Your task to perform on an android device: open device folders in google photos Image 0: 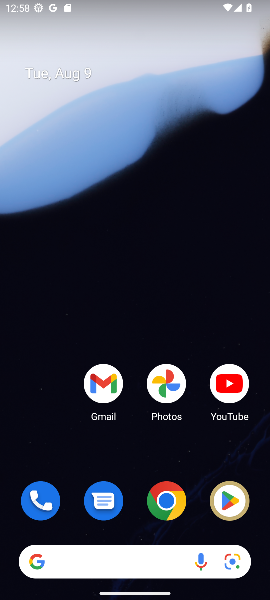
Step 0: click (169, 376)
Your task to perform on an android device: open device folders in google photos Image 1: 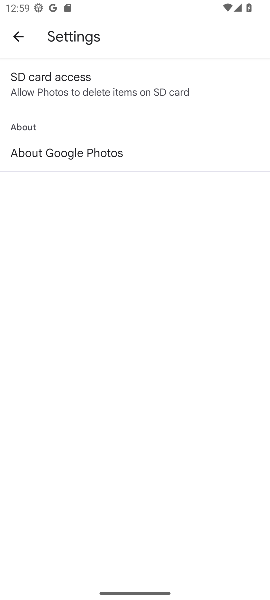
Step 1: click (11, 38)
Your task to perform on an android device: open device folders in google photos Image 2: 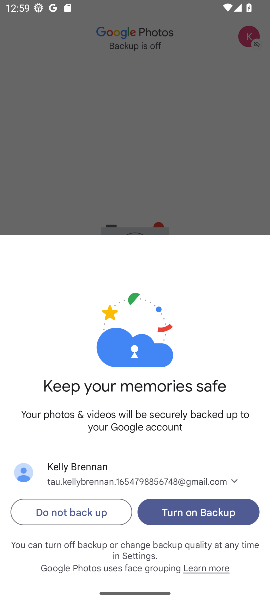
Step 2: click (90, 517)
Your task to perform on an android device: open device folders in google photos Image 3: 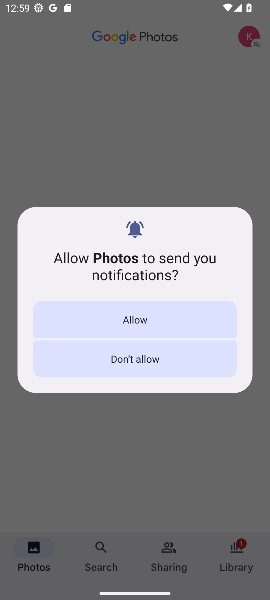
Step 3: click (171, 307)
Your task to perform on an android device: open device folders in google photos Image 4: 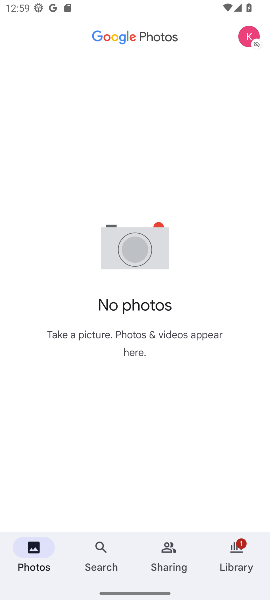
Step 4: click (102, 559)
Your task to perform on an android device: open device folders in google photos Image 5: 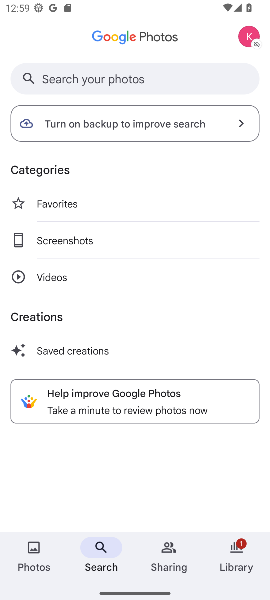
Step 5: task complete